Your task to perform on an android device: Open the Play Movies app and select the watchlist tab. Image 0: 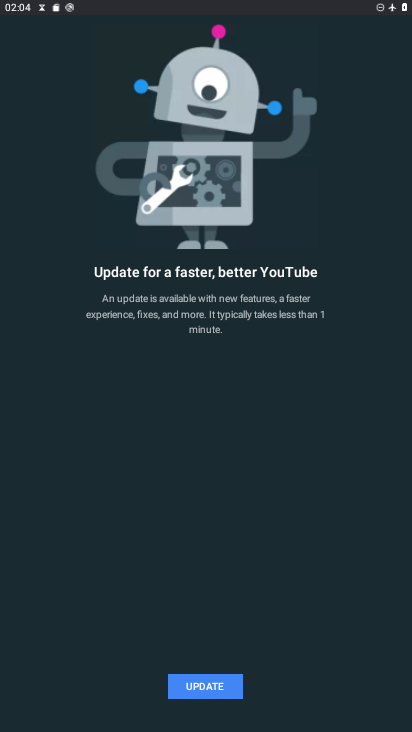
Step 0: press home button
Your task to perform on an android device: Open the Play Movies app and select the watchlist tab. Image 1: 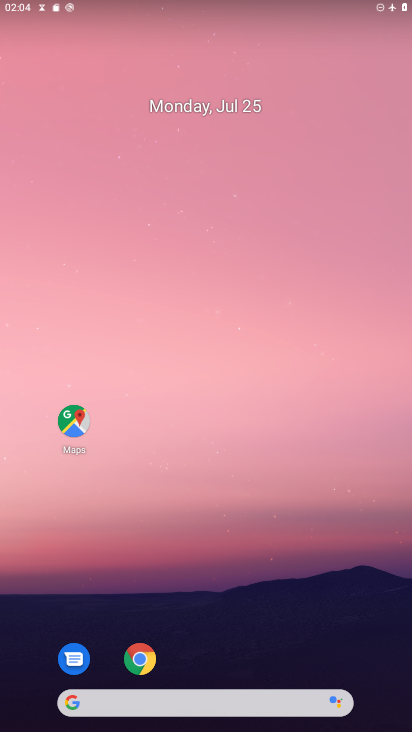
Step 1: drag from (241, 638) to (230, 242)
Your task to perform on an android device: Open the Play Movies app and select the watchlist tab. Image 2: 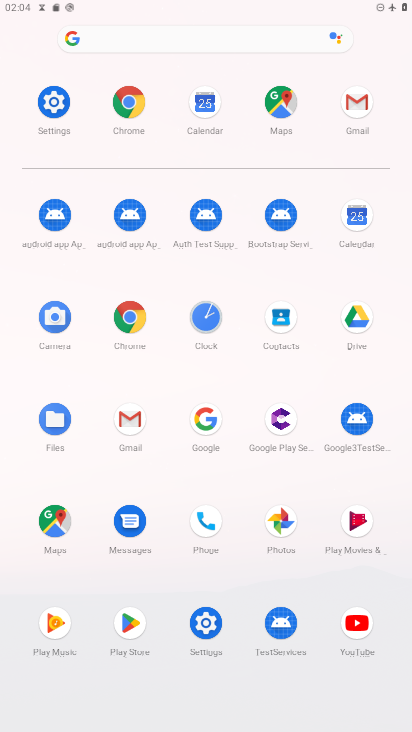
Step 2: click (354, 521)
Your task to perform on an android device: Open the Play Movies app and select the watchlist tab. Image 3: 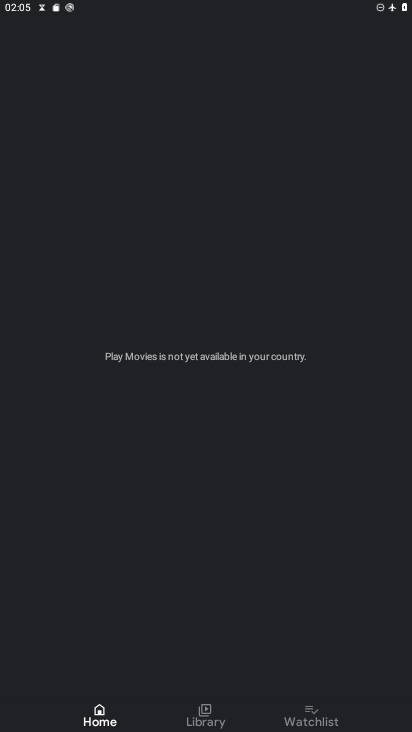
Step 3: click (310, 713)
Your task to perform on an android device: Open the Play Movies app and select the watchlist tab. Image 4: 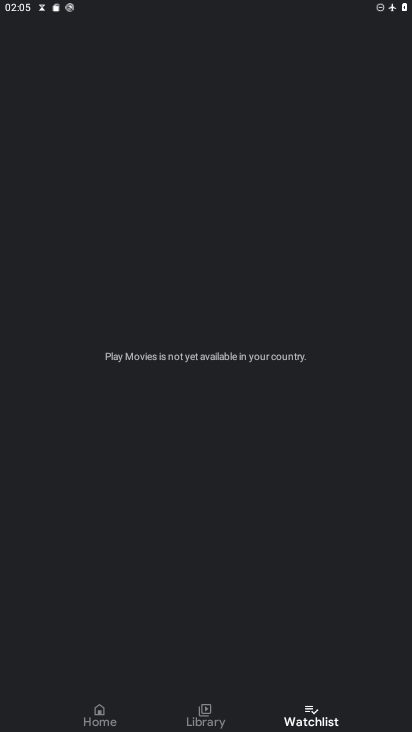
Step 4: task complete